Your task to perform on an android device: find snoozed emails in the gmail app Image 0: 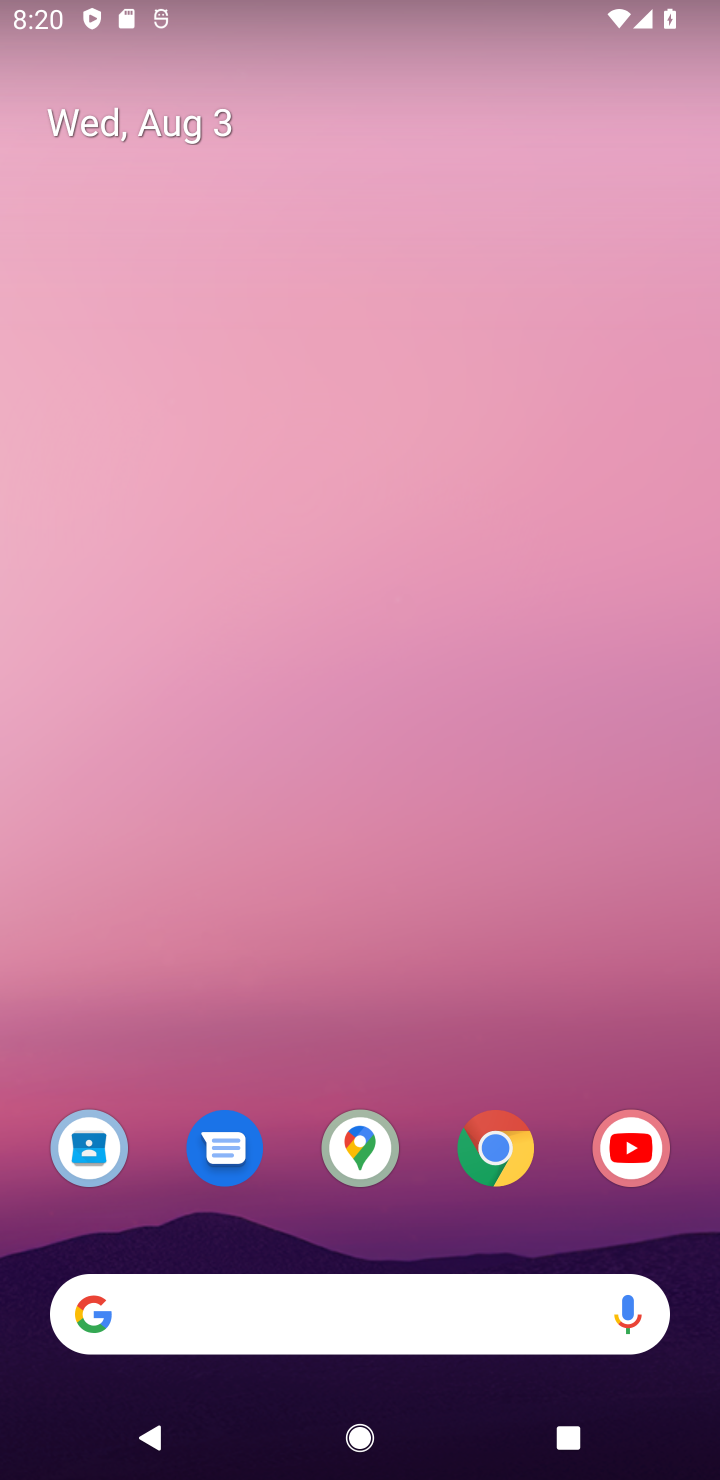
Step 0: drag from (557, 1055) to (470, 185)
Your task to perform on an android device: find snoozed emails in the gmail app Image 1: 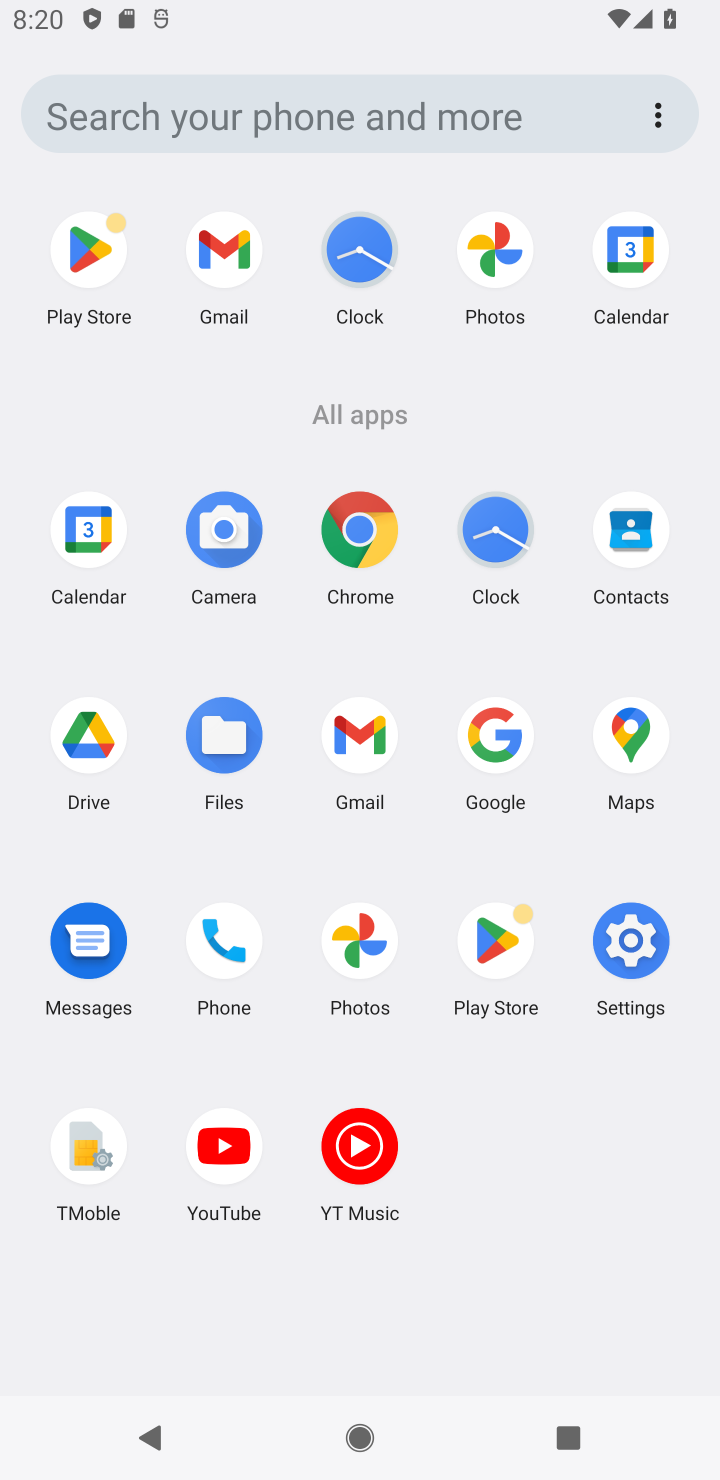
Step 1: click (245, 254)
Your task to perform on an android device: find snoozed emails in the gmail app Image 2: 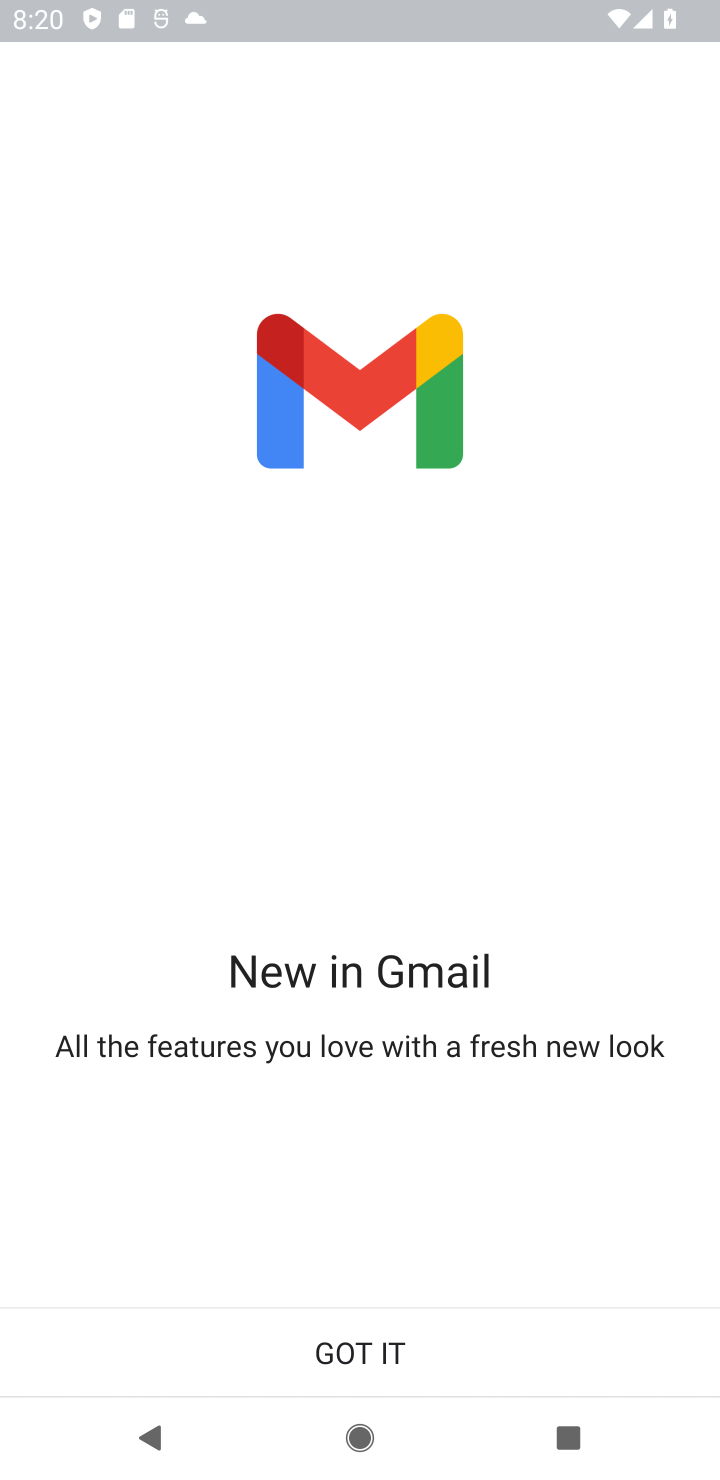
Step 2: click (471, 1335)
Your task to perform on an android device: find snoozed emails in the gmail app Image 3: 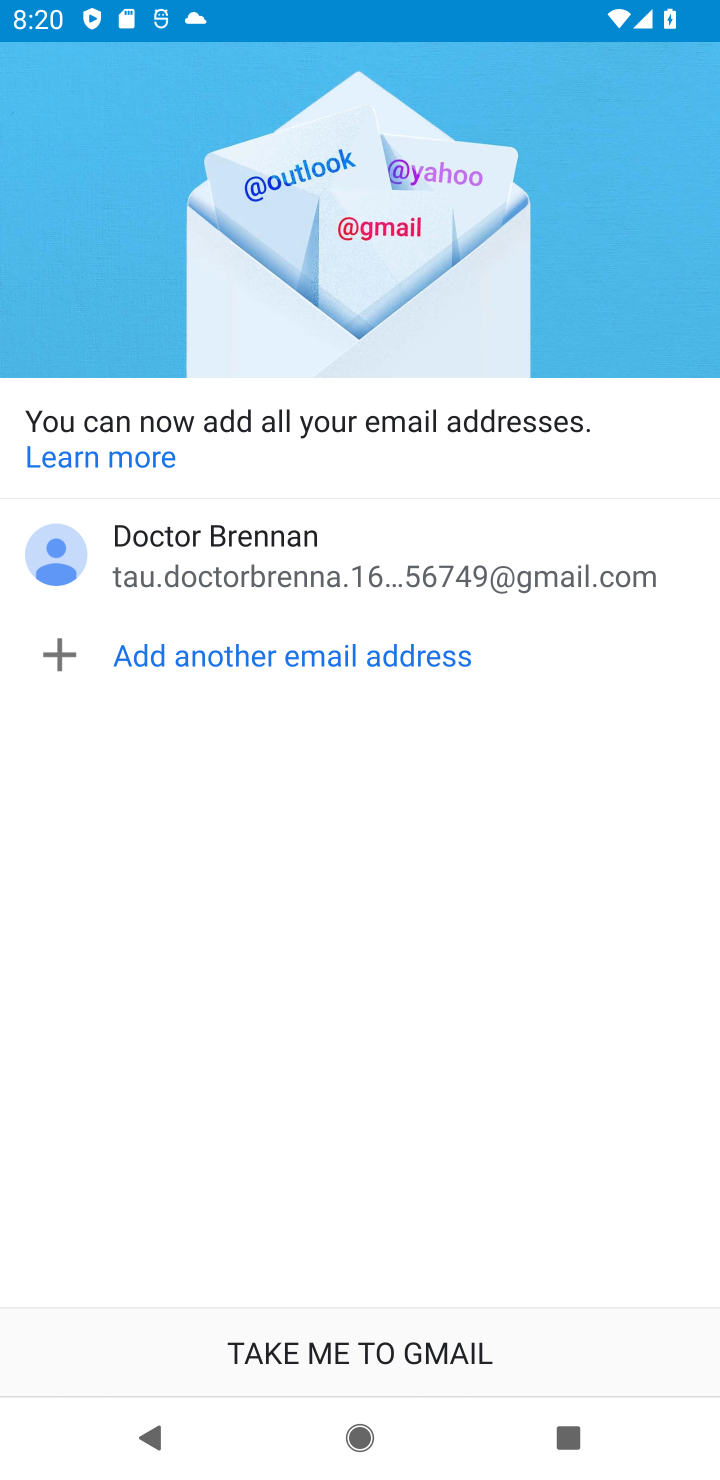
Step 3: click (446, 1341)
Your task to perform on an android device: find snoozed emails in the gmail app Image 4: 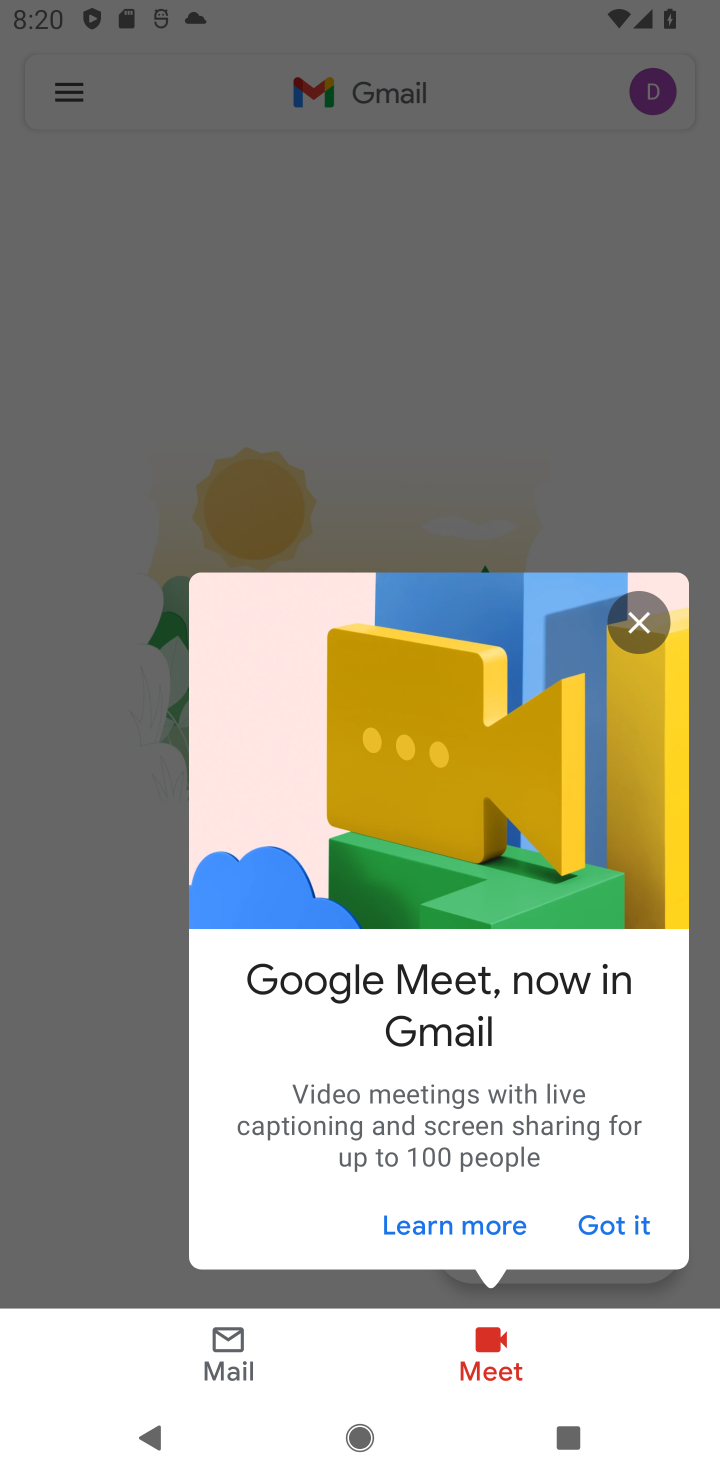
Step 4: click (647, 623)
Your task to perform on an android device: find snoozed emails in the gmail app Image 5: 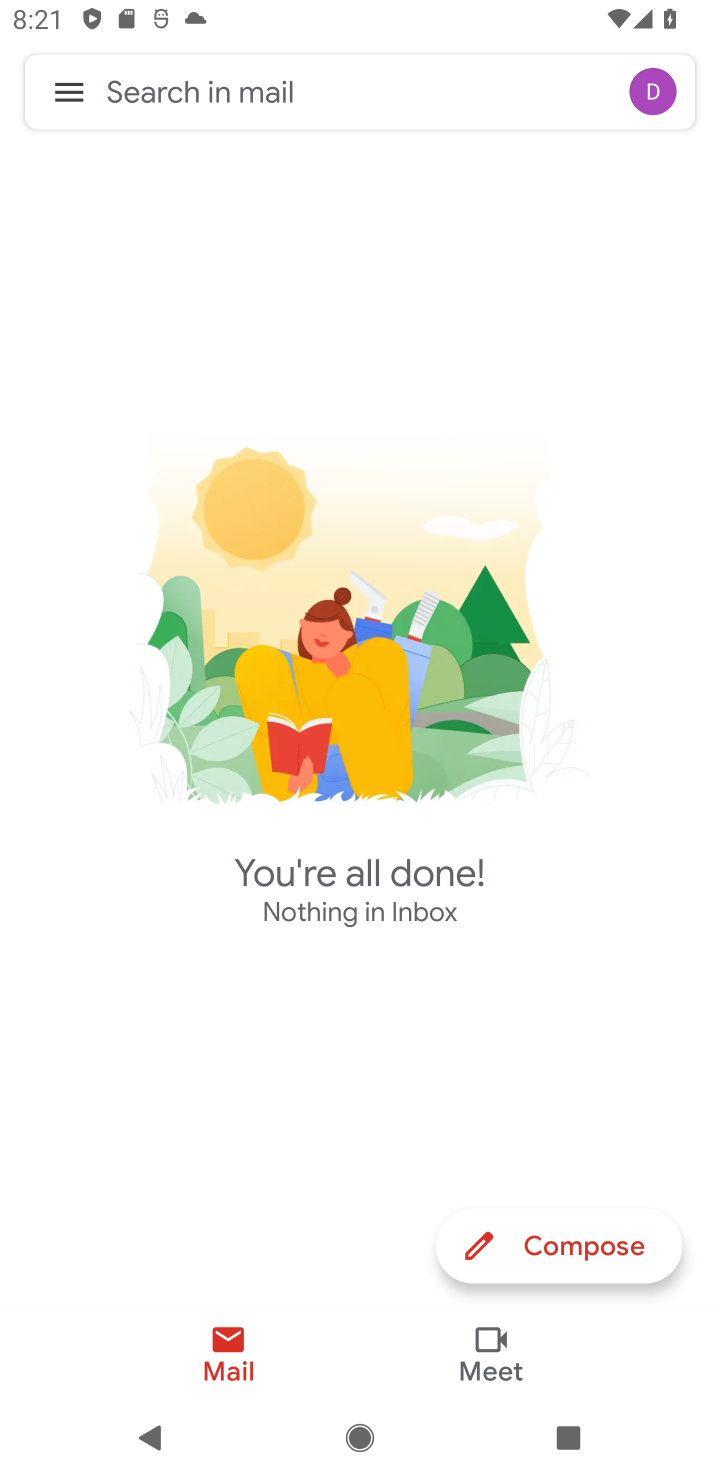
Step 5: click (70, 100)
Your task to perform on an android device: find snoozed emails in the gmail app Image 6: 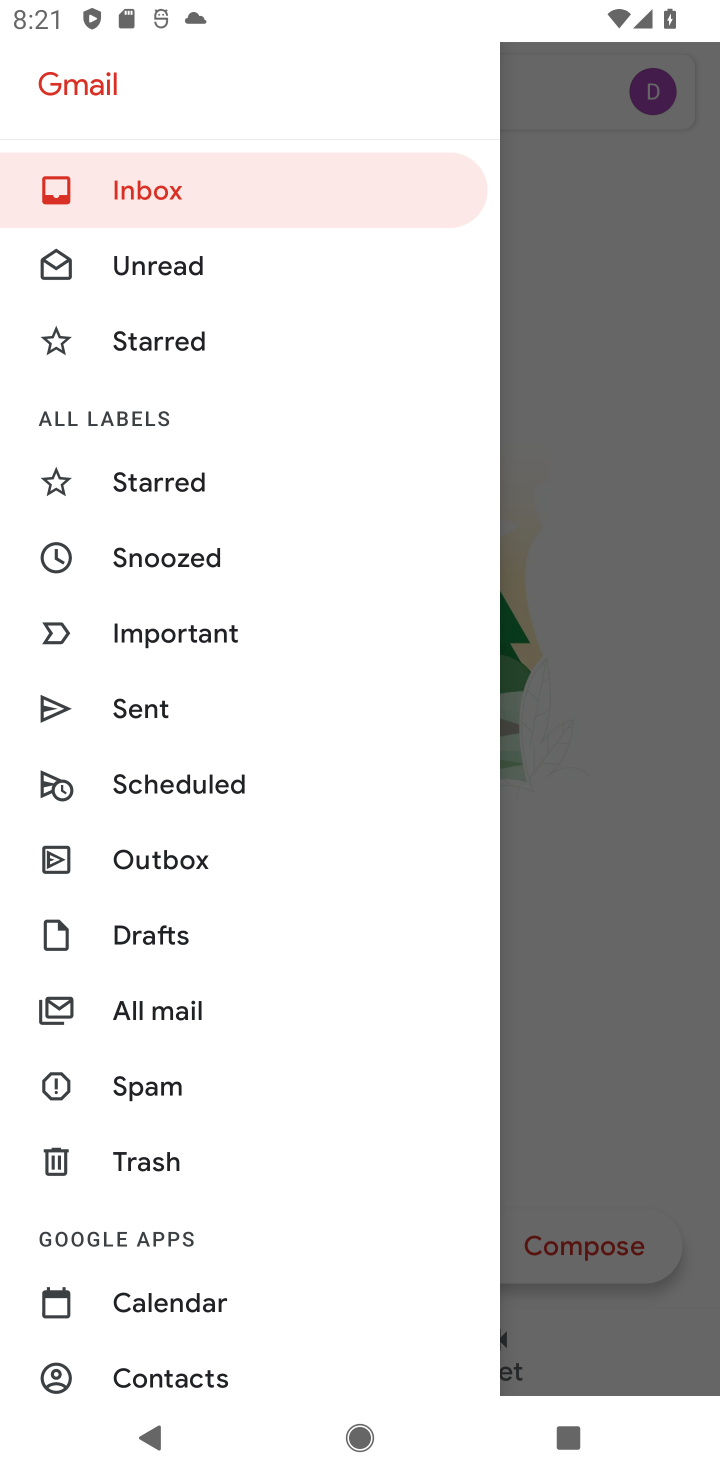
Step 6: click (240, 549)
Your task to perform on an android device: find snoozed emails in the gmail app Image 7: 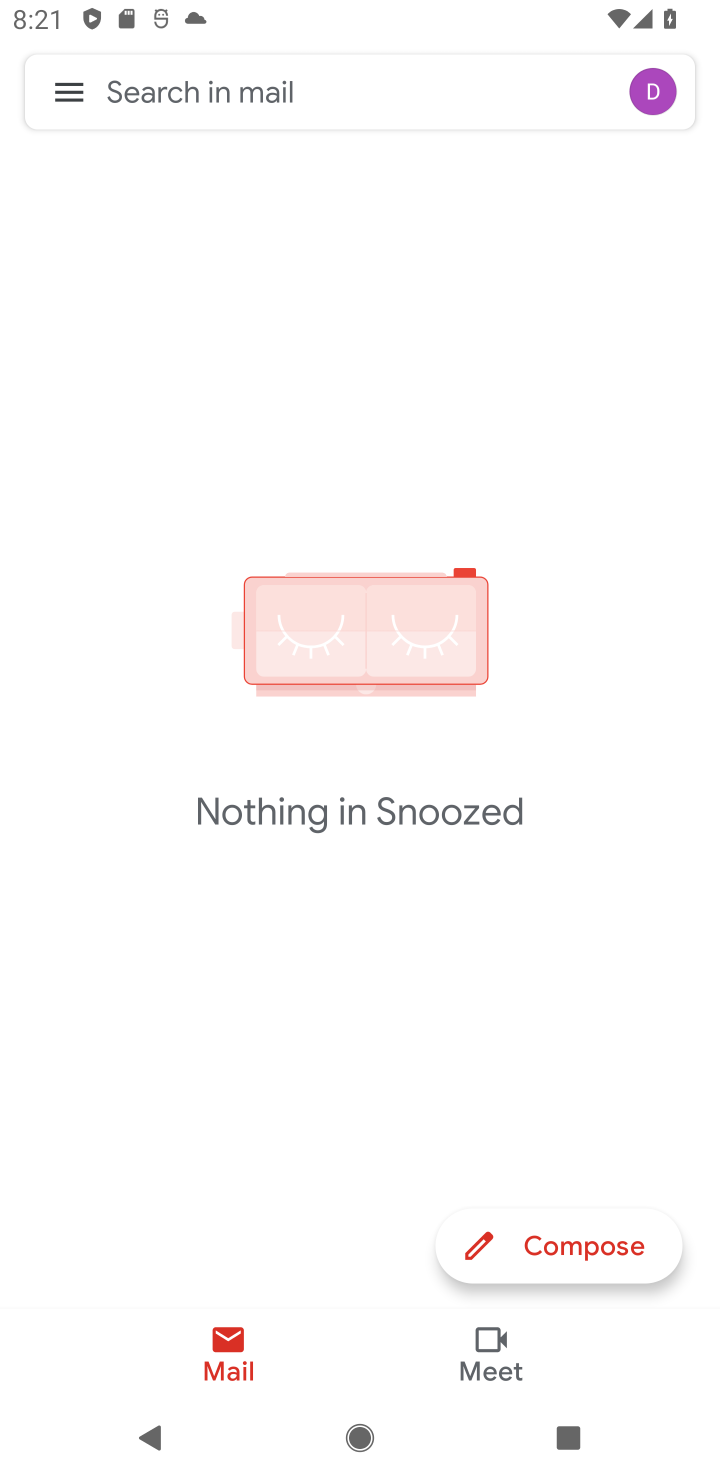
Step 7: task complete